Your task to perform on an android device: set default search engine in the chrome app Image 0: 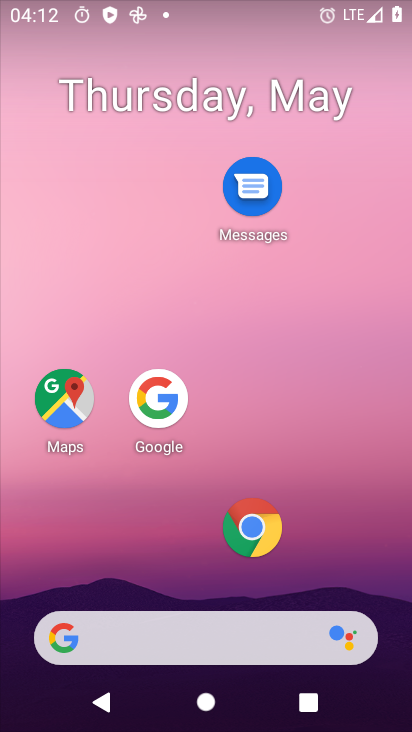
Step 0: drag from (184, 588) to (199, 184)
Your task to perform on an android device: set default search engine in the chrome app Image 1: 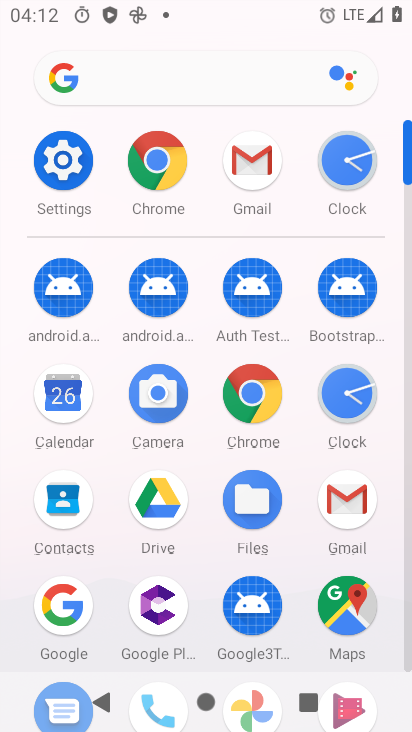
Step 1: click (238, 393)
Your task to perform on an android device: set default search engine in the chrome app Image 2: 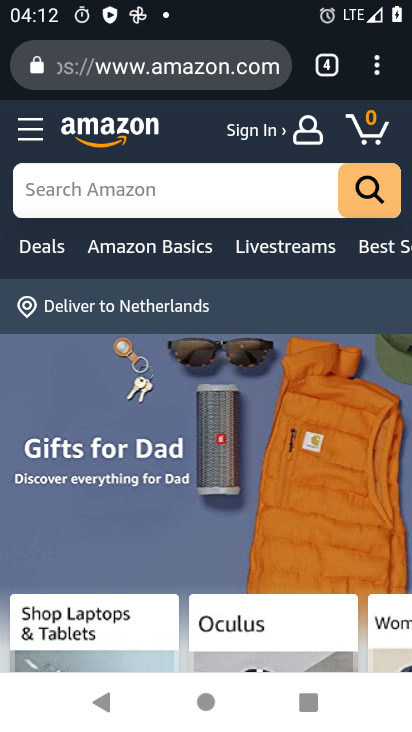
Step 2: click (371, 75)
Your task to perform on an android device: set default search engine in the chrome app Image 3: 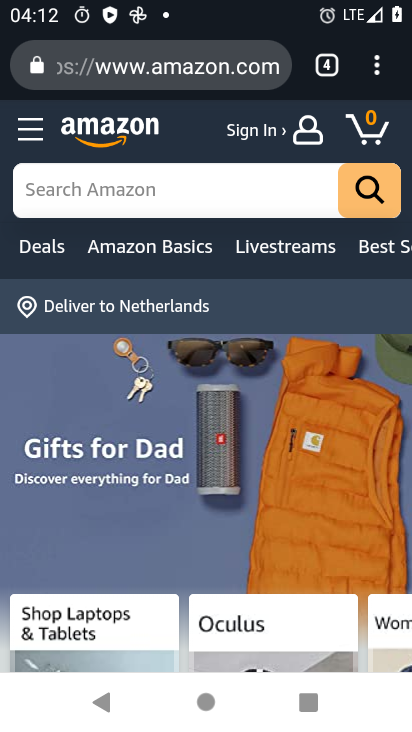
Step 3: click (377, 57)
Your task to perform on an android device: set default search engine in the chrome app Image 4: 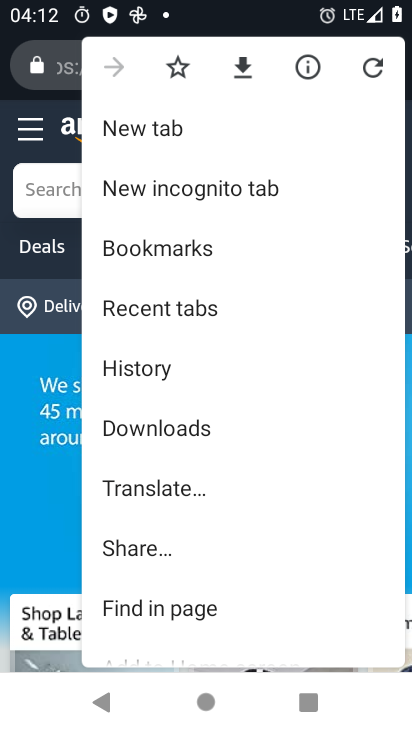
Step 4: drag from (172, 619) to (302, 9)
Your task to perform on an android device: set default search engine in the chrome app Image 5: 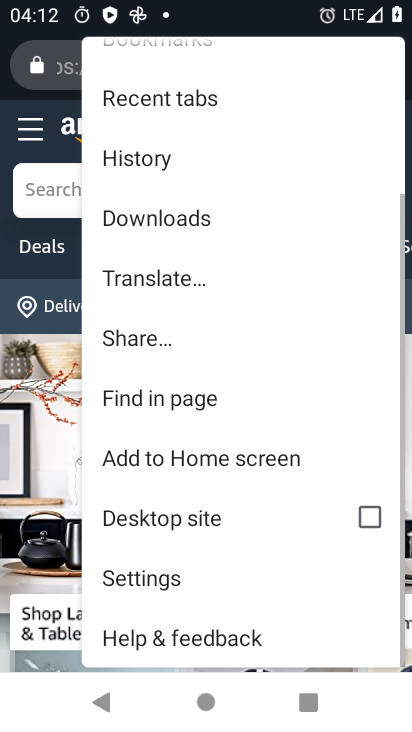
Step 5: click (189, 571)
Your task to perform on an android device: set default search engine in the chrome app Image 6: 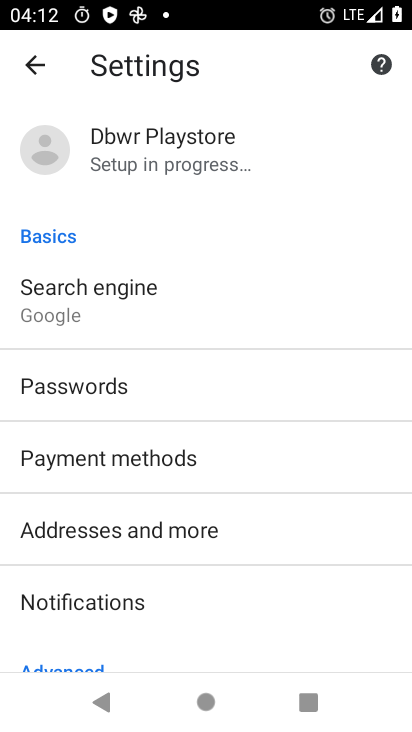
Step 6: click (116, 299)
Your task to perform on an android device: set default search engine in the chrome app Image 7: 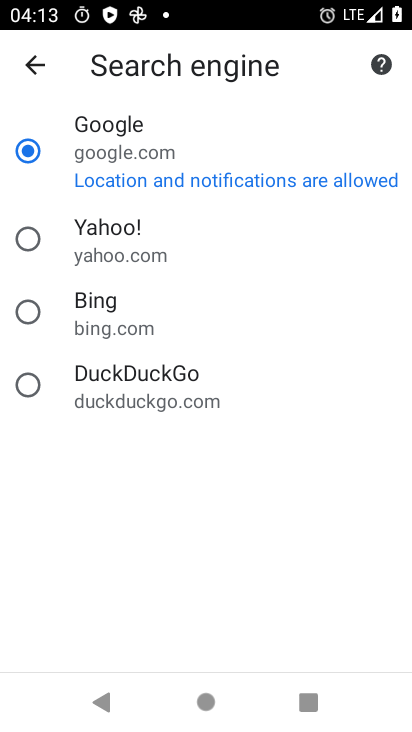
Step 7: task complete